Your task to perform on an android device: open device folders in google photos Image 0: 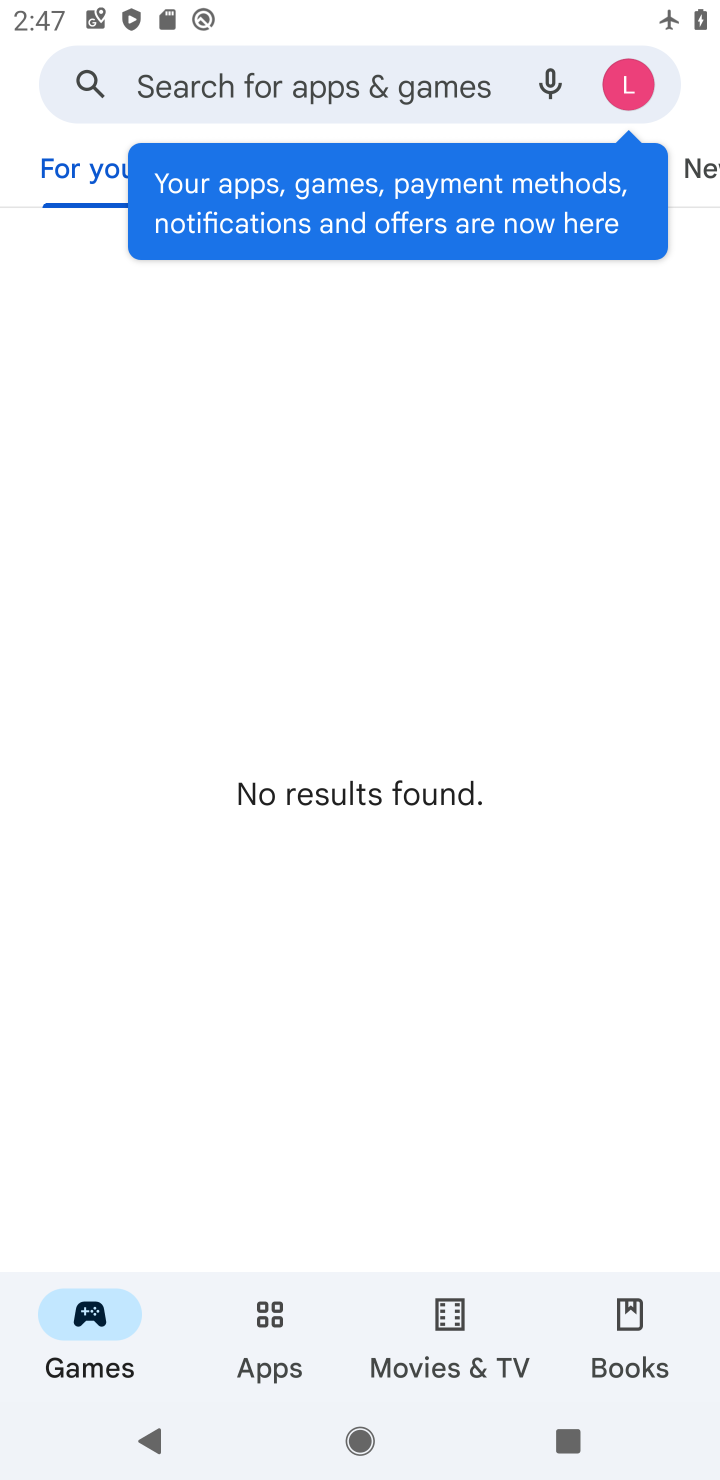
Step 0: press home button
Your task to perform on an android device: open device folders in google photos Image 1: 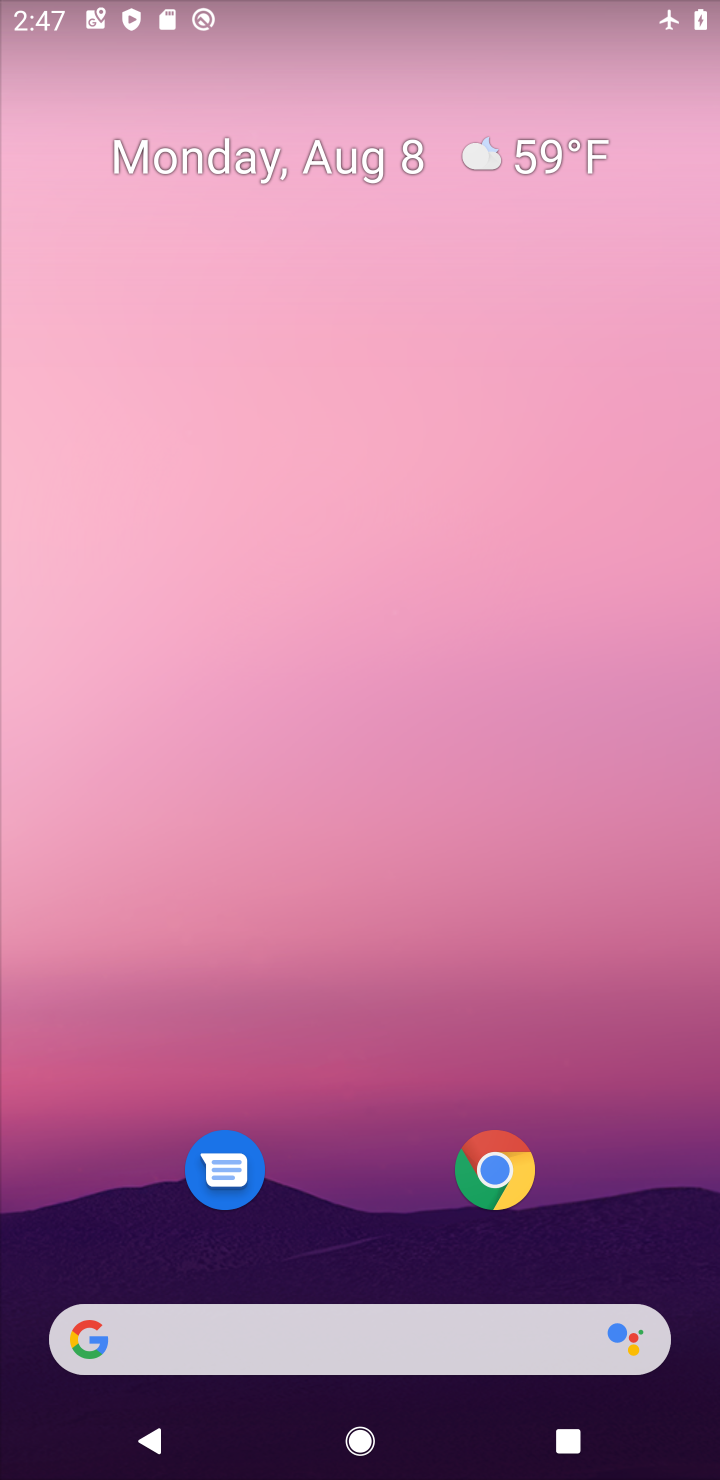
Step 1: drag from (329, 1181) to (326, 353)
Your task to perform on an android device: open device folders in google photos Image 2: 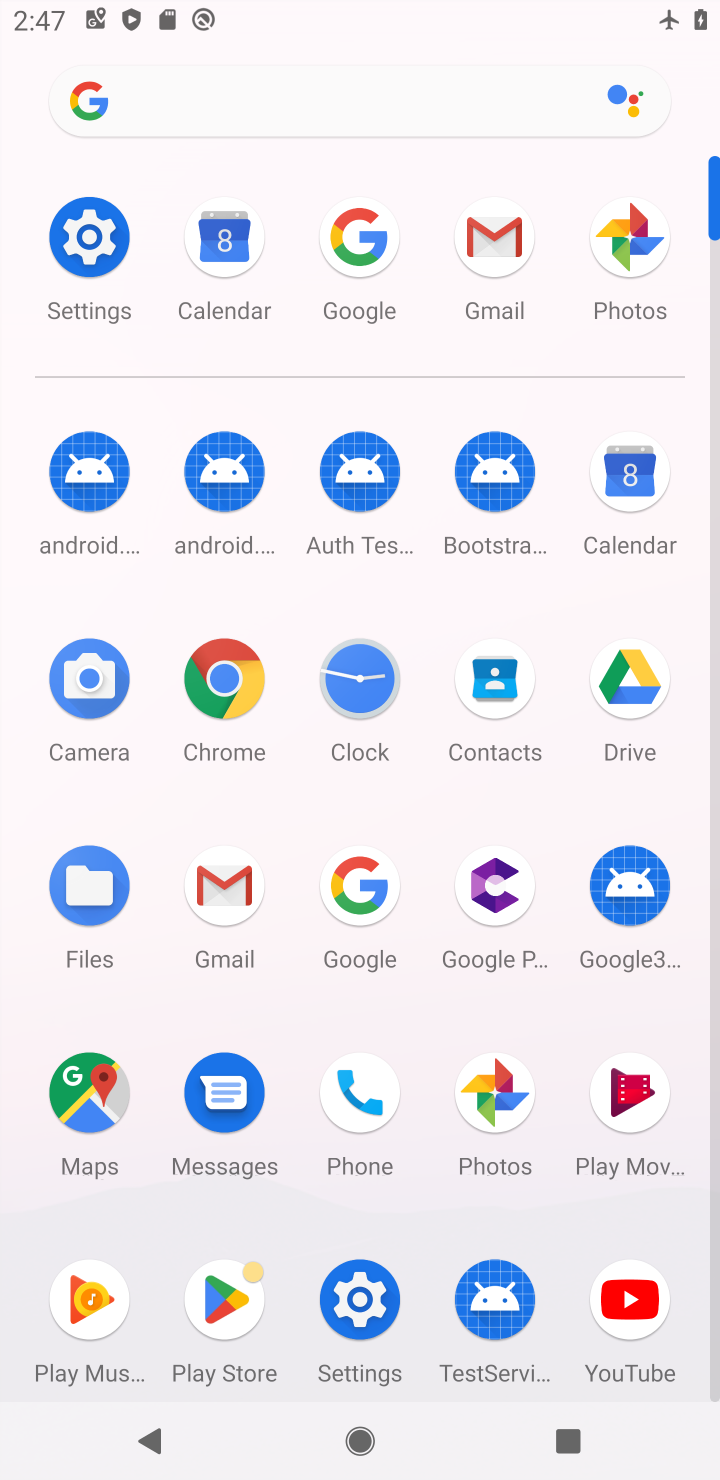
Step 2: click (657, 250)
Your task to perform on an android device: open device folders in google photos Image 3: 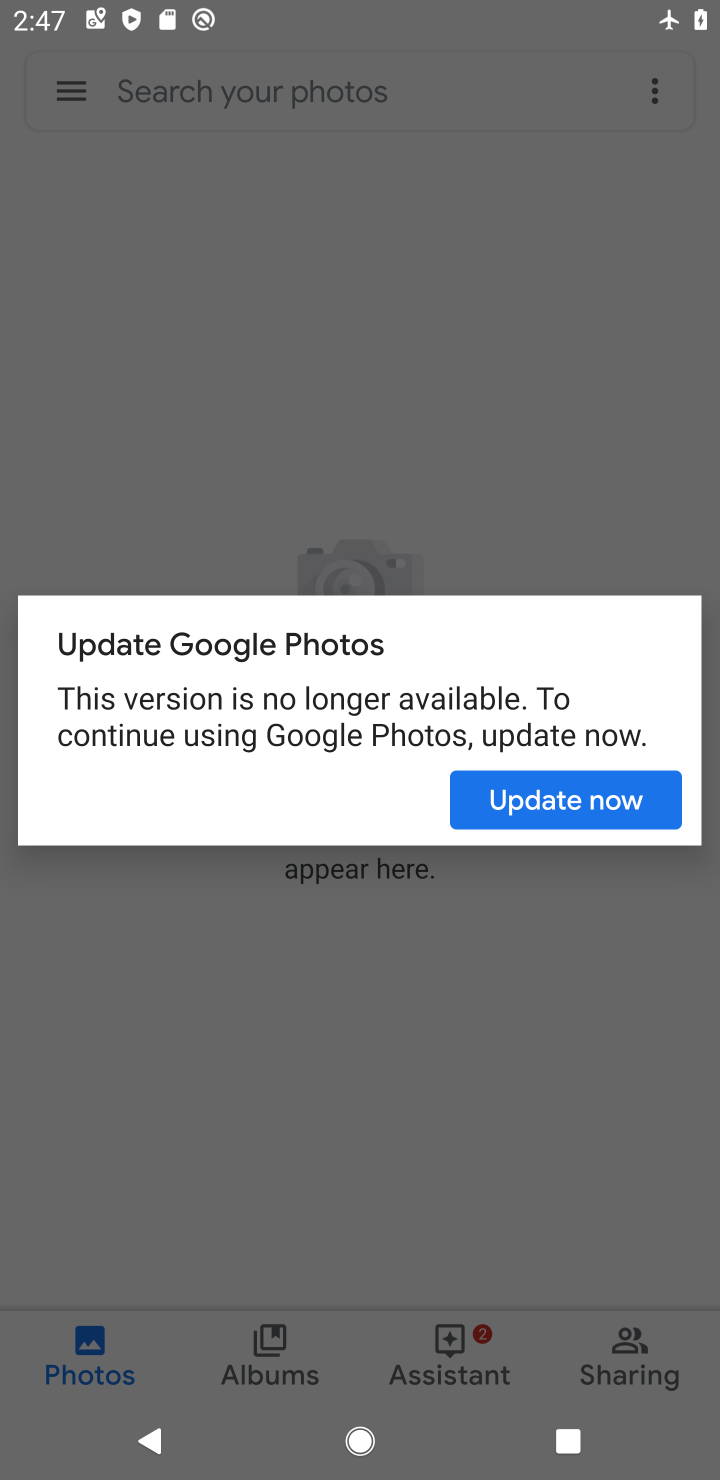
Step 3: click (353, 479)
Your task to perform on an android device: open device folders in google photos Image 4: 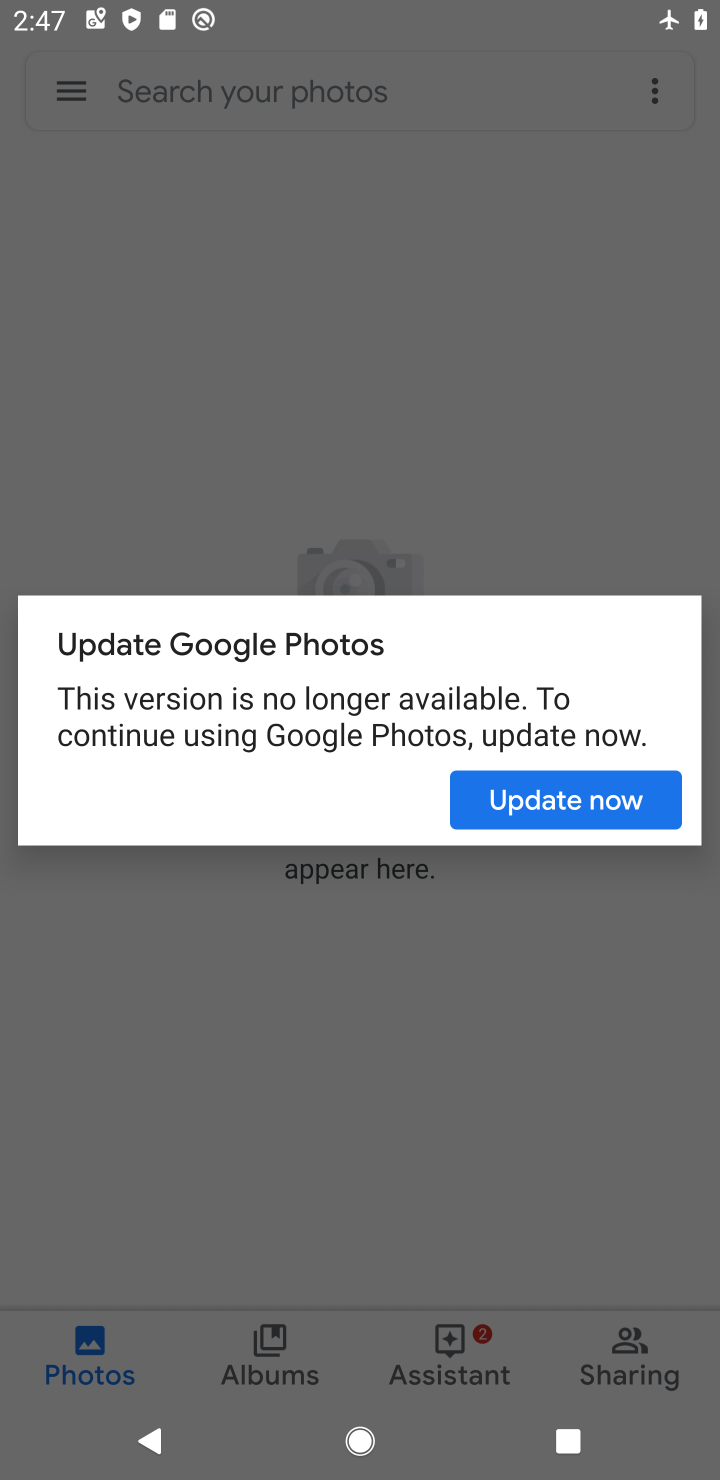
Step 4: click (513, 806)
Your task to perform on an android device: open device folders in google photos Image 5: 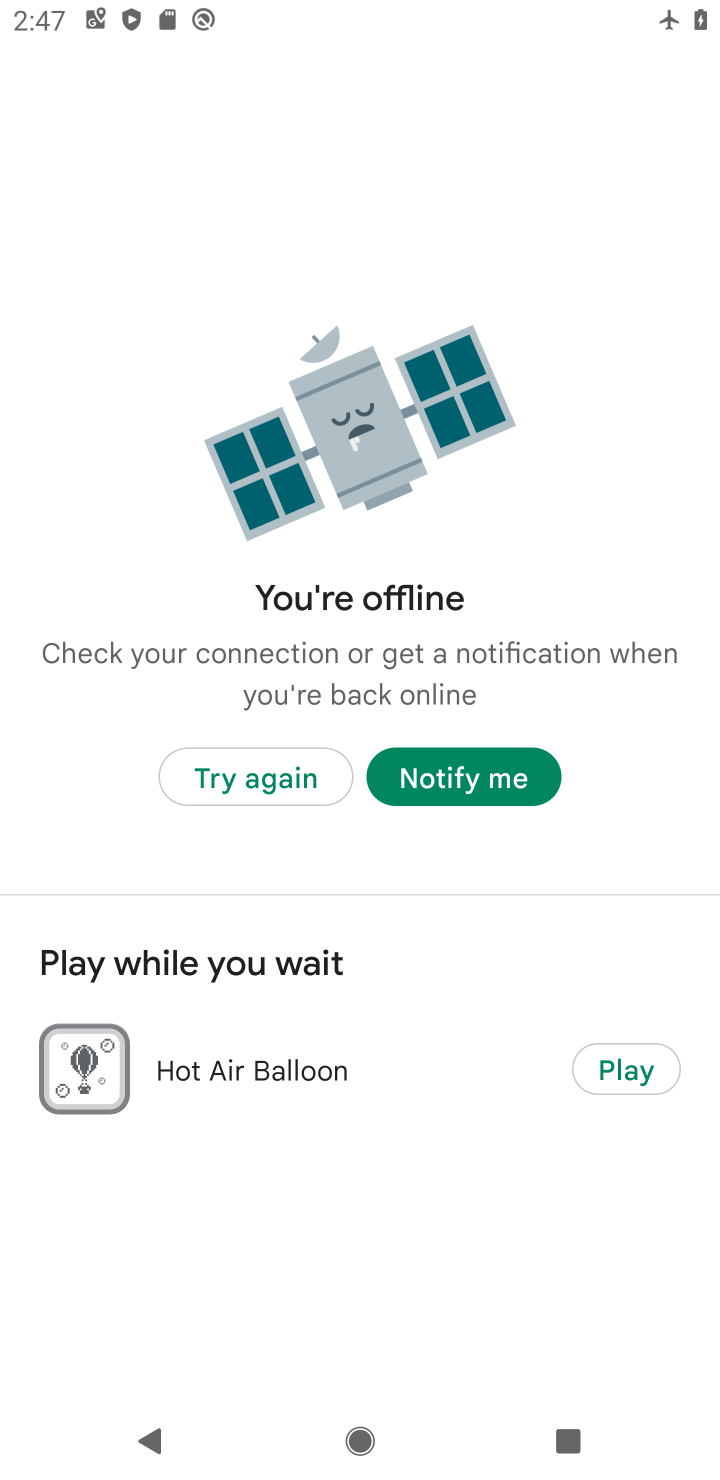
Step 5: press back button
Your task to perform on an android device: open device folders in google photos Image 6: 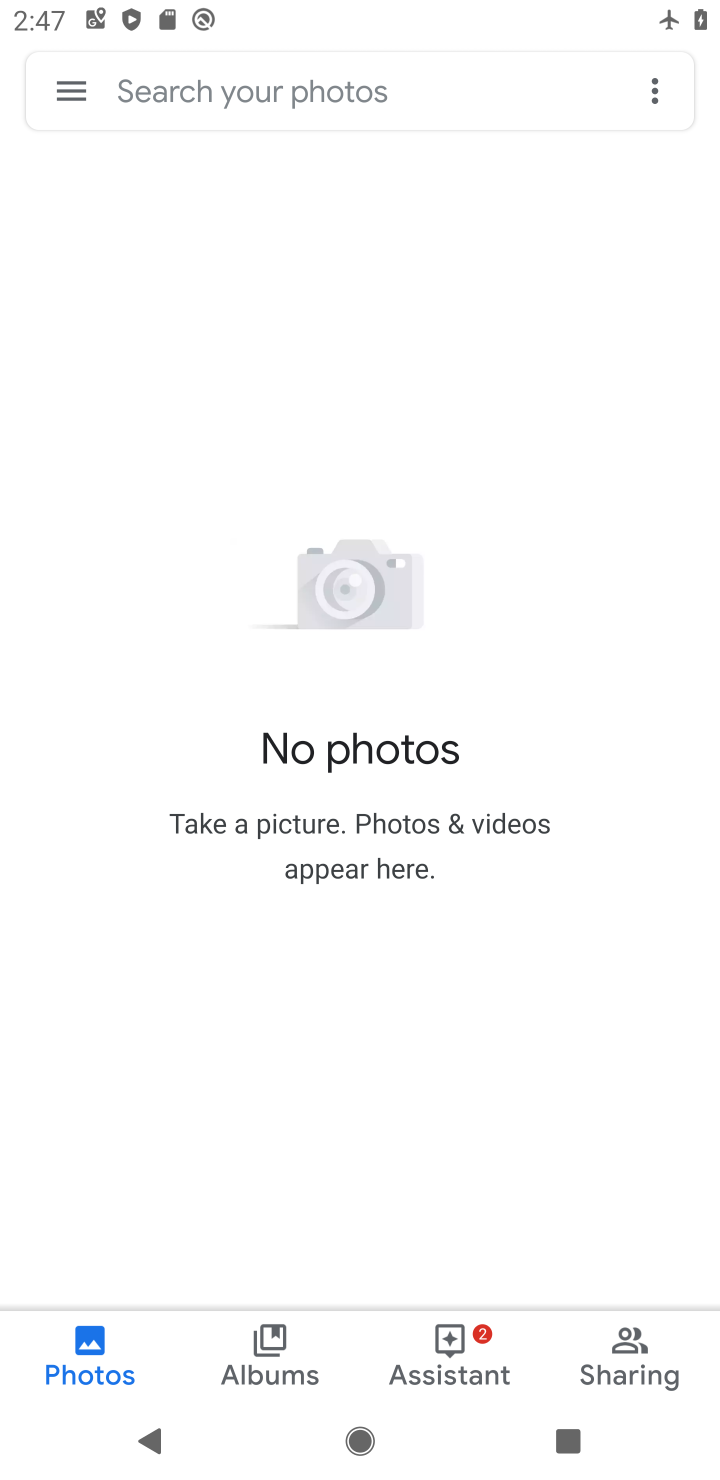
Step 6: click (55, 98)
Your task to perform on an android device: open device folders in google photos Image 7: 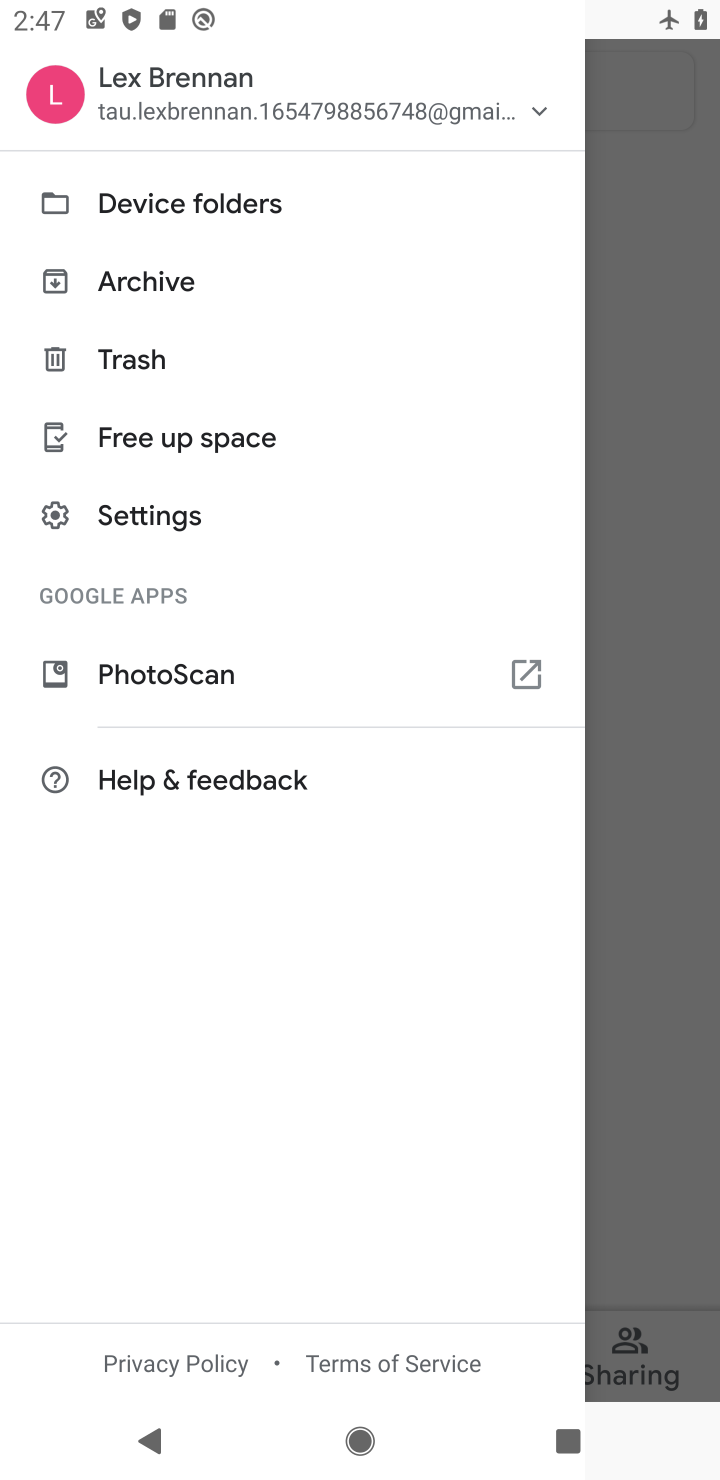
Step 7: click (200, 198)
Your task to perform on an android device: open device folders in google photos Image 8: 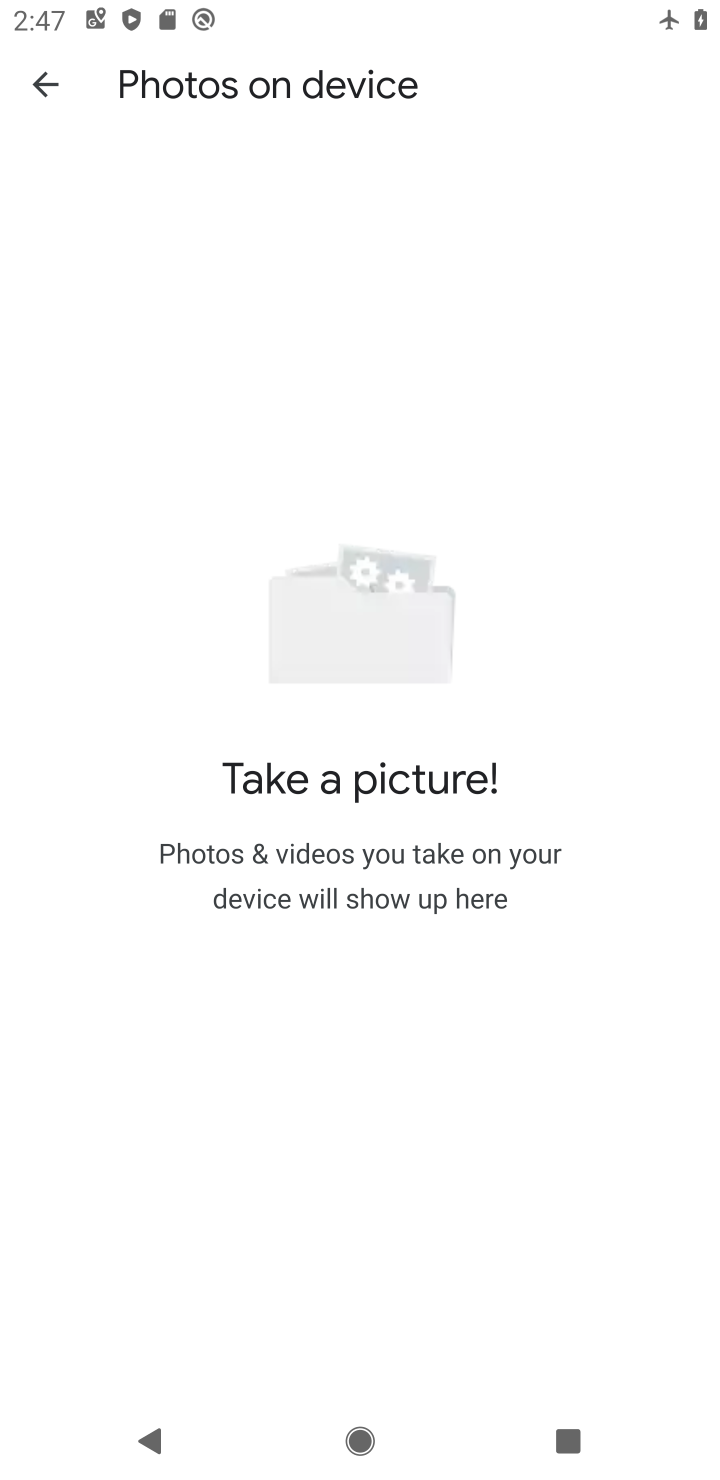
Step 8: task complete